Your task to perform on an android device: change text size in settings app Image 0: 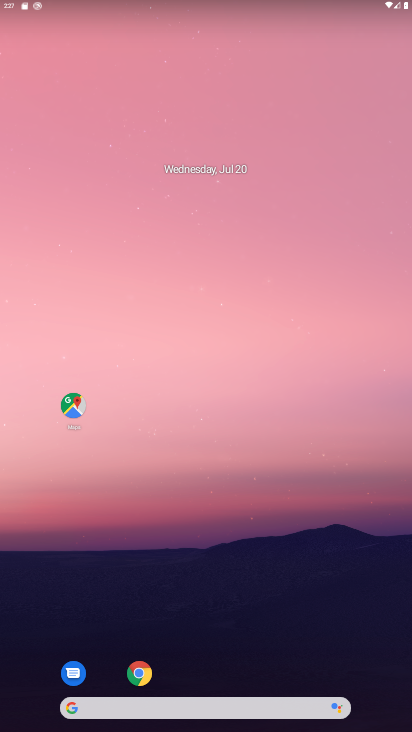
Step 0: drag from (227, 653) to (226, 149)
Your task to perform on an android device: change text size in settings app Image 1: 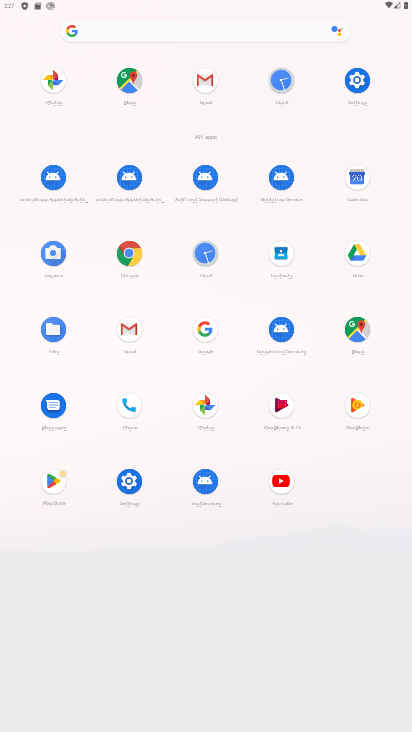
Step 1: click (134, 478)
Your task to perform on an android device: change text size in settings app Image 2: 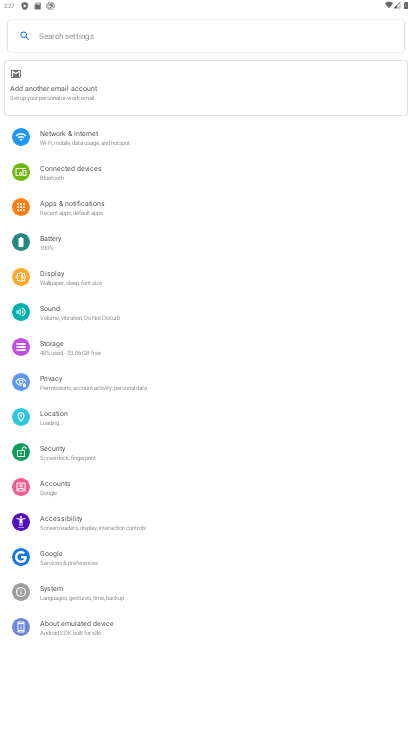
Step 2: task complete